Your task to perform on an android device: Open Amazon Image 0: 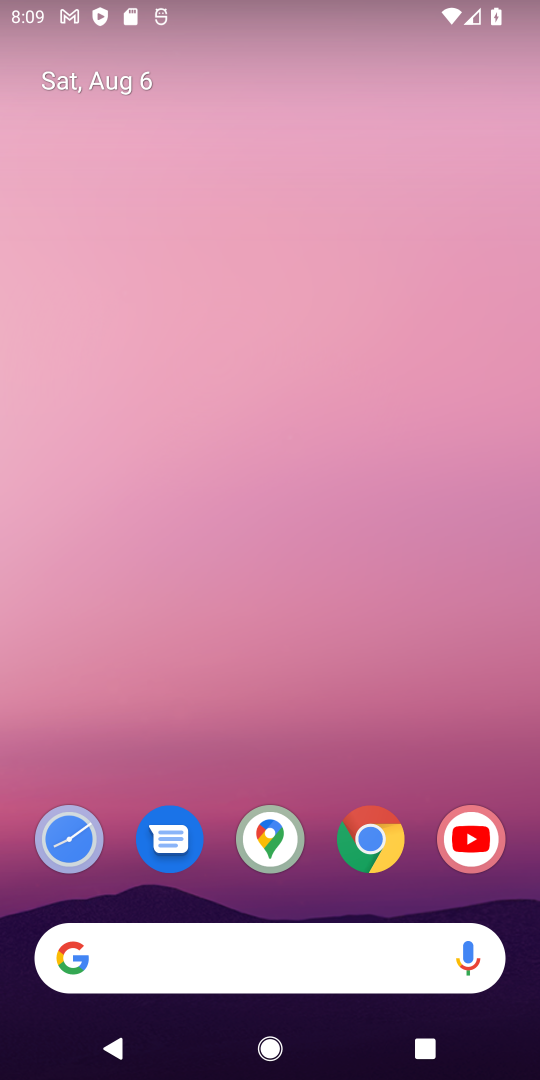
Step 0: click (365, 841)
Your task to perform on an android device: Open Amazon Image 1: 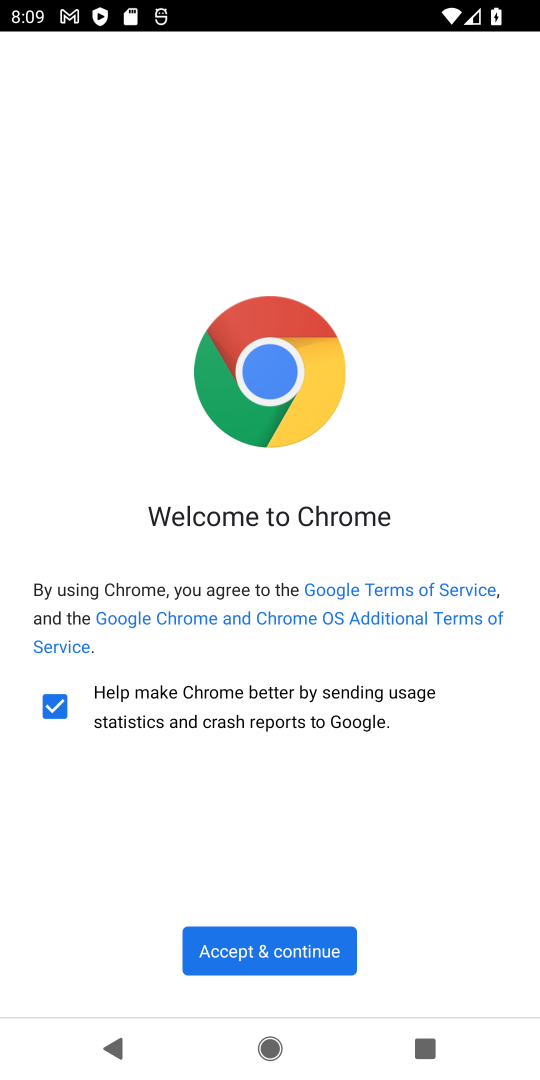
Step 1: click (312, 948)
Your task to perform on an android device: Open Amazon Image 2: 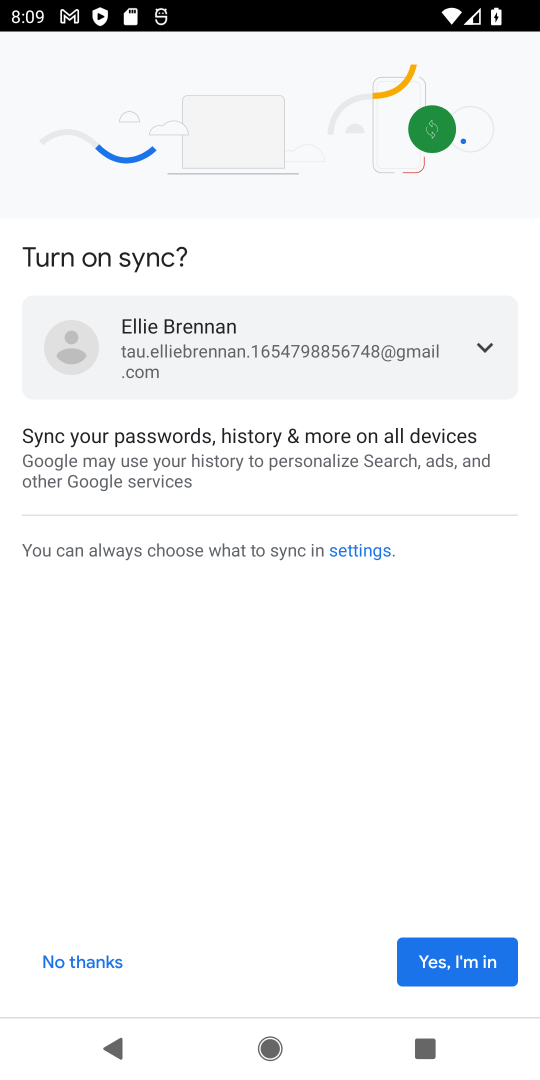
Step 2: click (478, 958)
Your task to perform on an android device: Open Amazon Image 3: 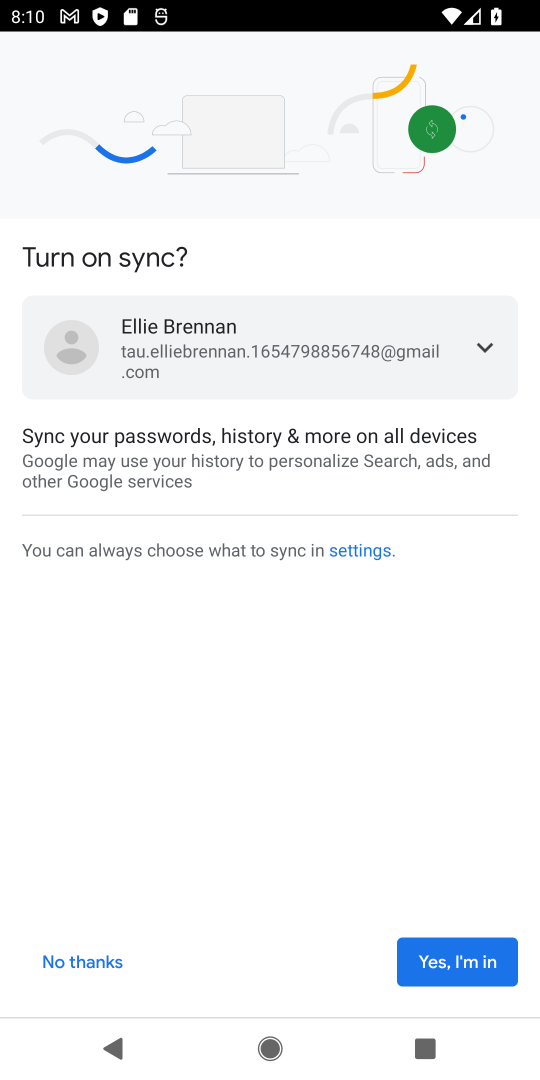
Step 3: click (476, 949)
Your task to perform on an android device: Open Amazon Image 4: 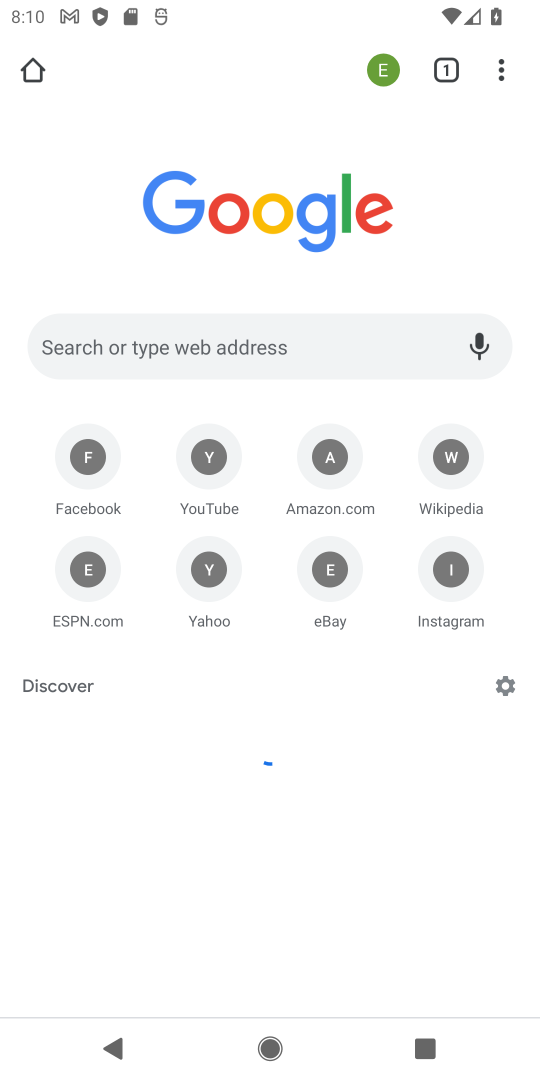
Step 4: click (338, 466)
Your task to perform on an android device: Open Amazon Image 5: 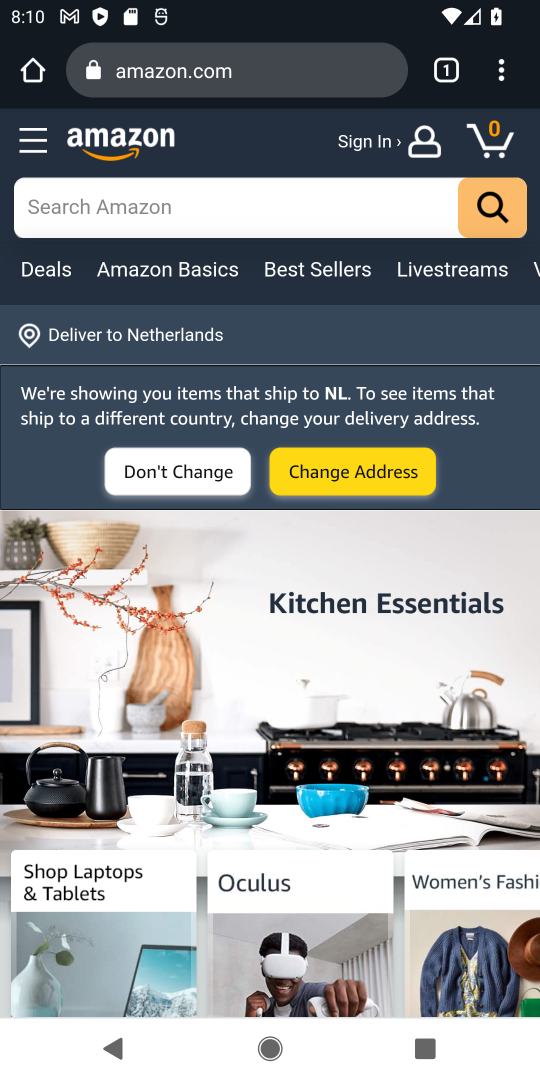
Step 5: task complete